Your task to perform on an android device: open sync settings in chrome Image 0: 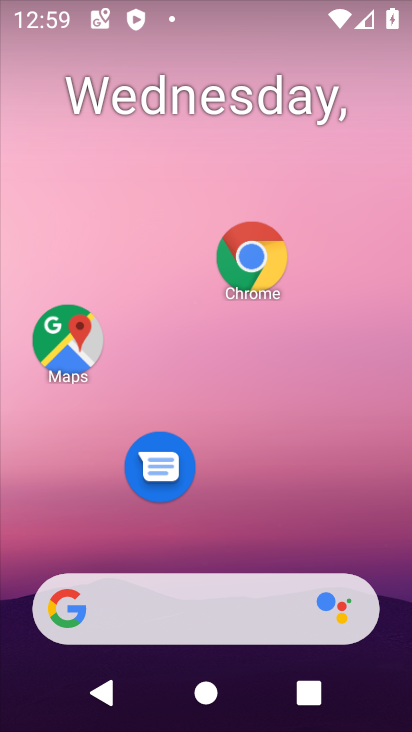
Step 0: press home button
Your task to perform on an android device: open sync settings in chrome Image 1: 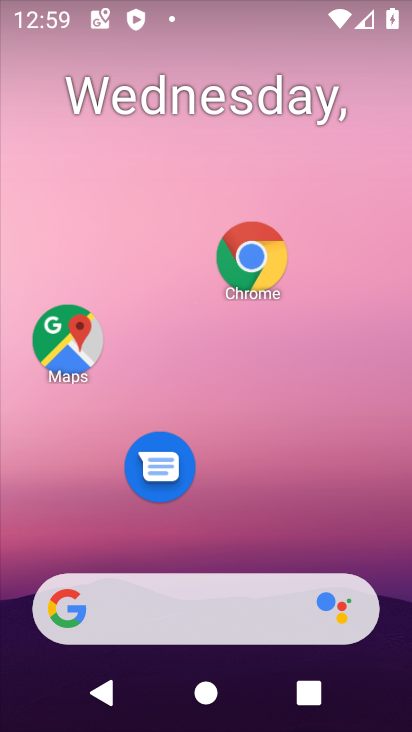
Step 1: click (251, 247)
Your task to perform on an android device: open sync settings in chrome Image 2: 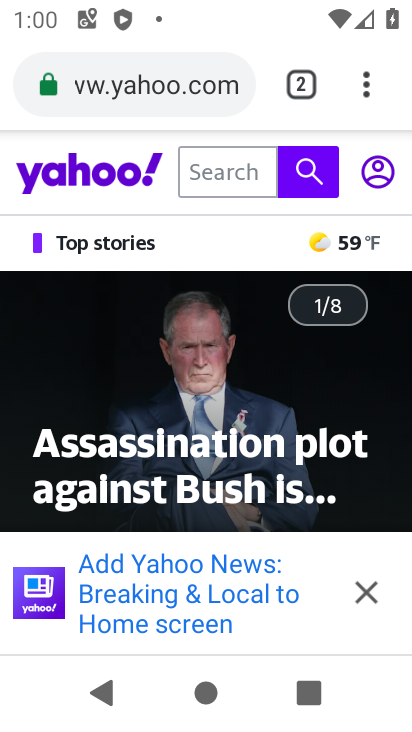
Step 2: drag from (371, 81) to (145, 519)
Your task to perform on an android device: open sync settings in chrome Image 3: 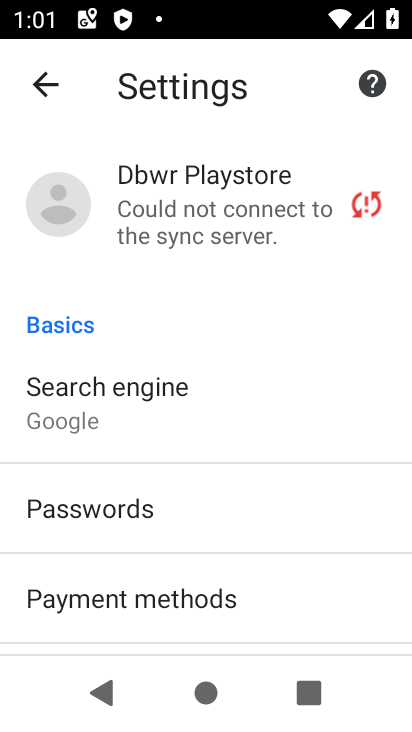
Step 3: drag from (66, 595) to (78, 296)
Your task to perform on an android device: open sync settings in chrome Image 4: 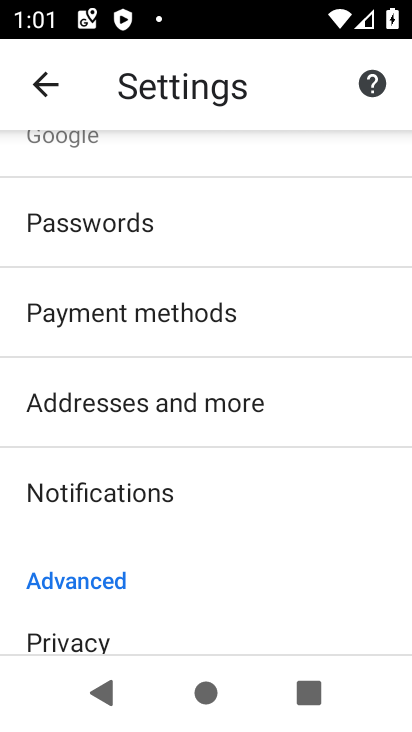
Step 4: drag from (150, 597) to (159, 345)
Your task to perform on an android device: open sync settings in chrome Image 5: 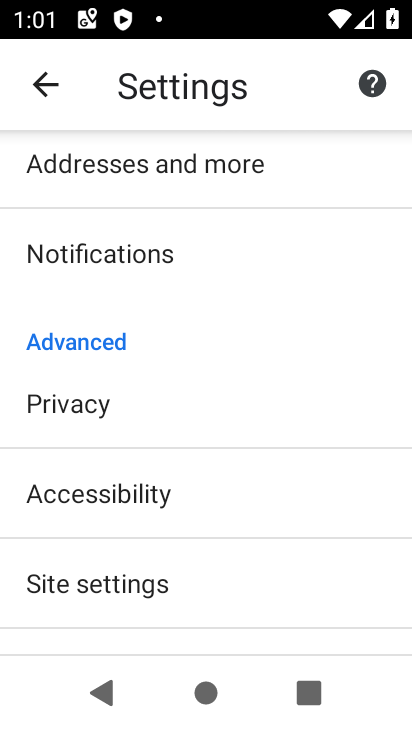
Step 5: drag from (200, 177) to (200, 572)
Your task to perform on an android device: open sync settings in chrome Image 6: 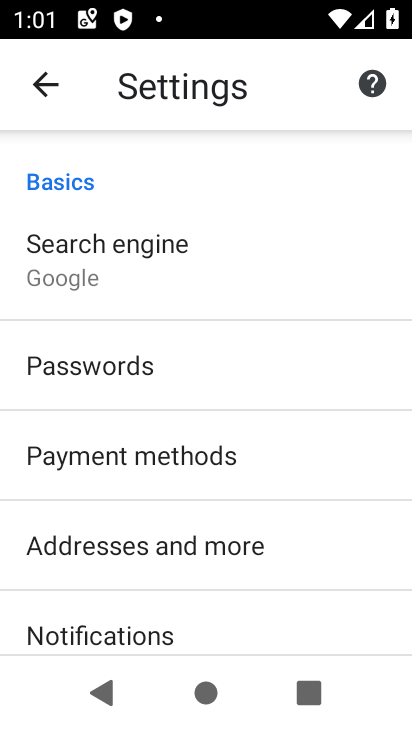
Step 6: drag from (158, 222) to (154, 687)
Your task to perform on an android device: open sync settings in chrome Image 7: 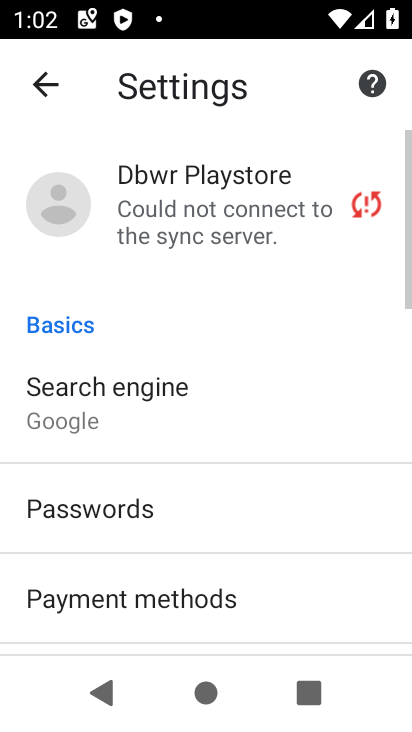
Step 7: click (161, 193)
Your task to perform on an android device: open sync settings in chrome Image 8: 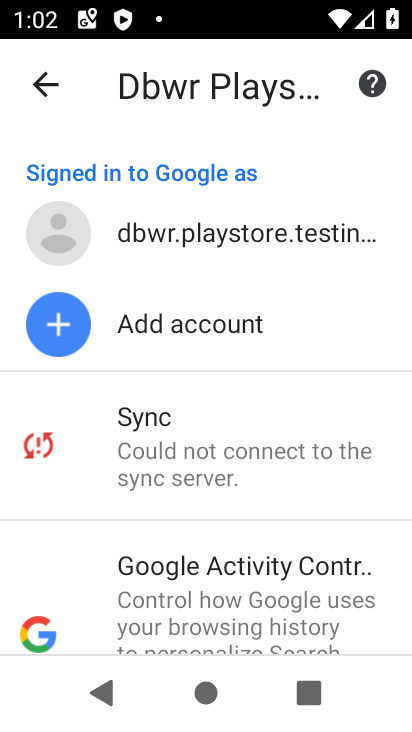
Step 8: task complete